Your task to perform on an android device: open a bookmark in the chrome app Image 0: 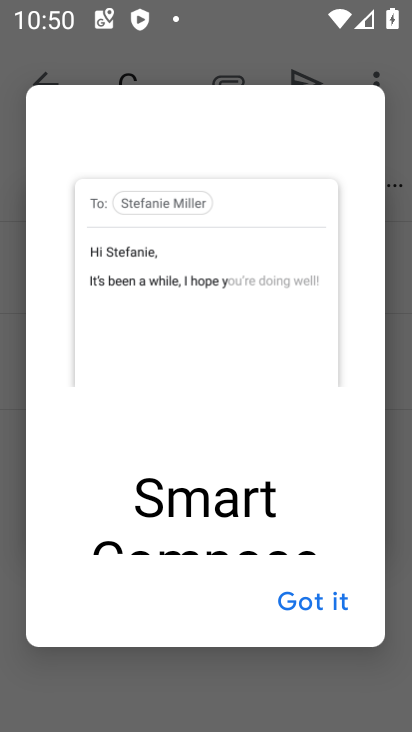
Step 0: press home button
Your task to perform on an android device: open a bookmark in the chrome app Image 1: 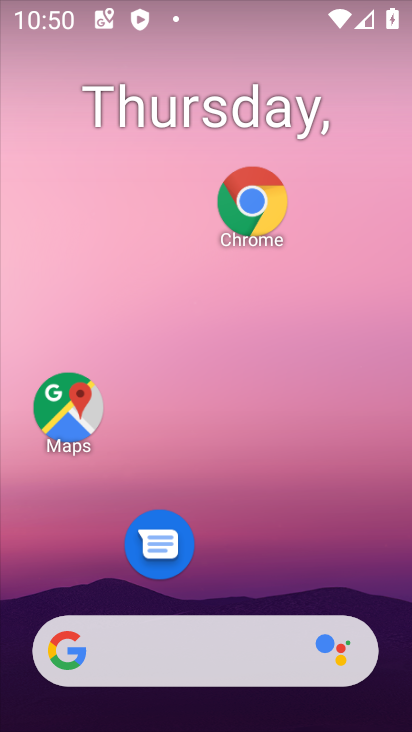
Step 1: click (260, 200)
Your task to perform on an android device: open a bookmark in the chrome app Image 2: 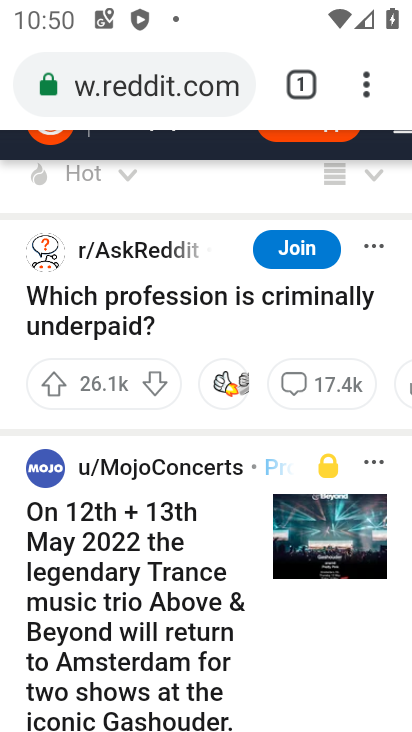
Step 2: click (371, 85)
Your task to perform on an android device: open a bookmark in the chrome app Image 3: 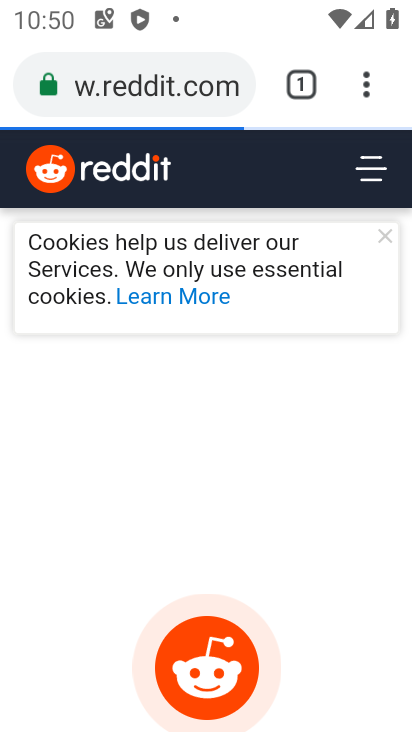
Step 3: click (365, 84)
Your task to perform on an android device: open a bookmark in the chrome app Image 4: 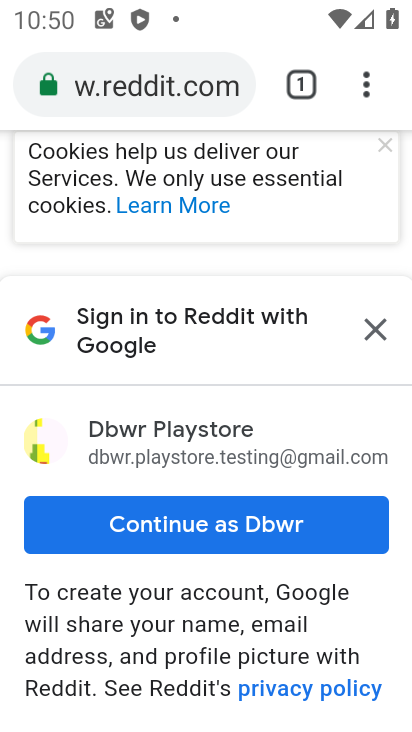
Step 4: click (363, 81)
Your task to perform on an android device: open a bookmark in the chrome app Image 5: 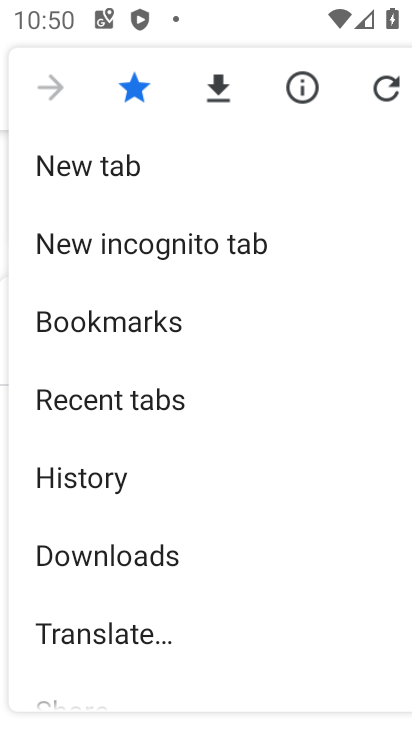
Step 5: click (194, 317)
Your task to perform on an android device: open a bookmark in the chrome app Image 6: 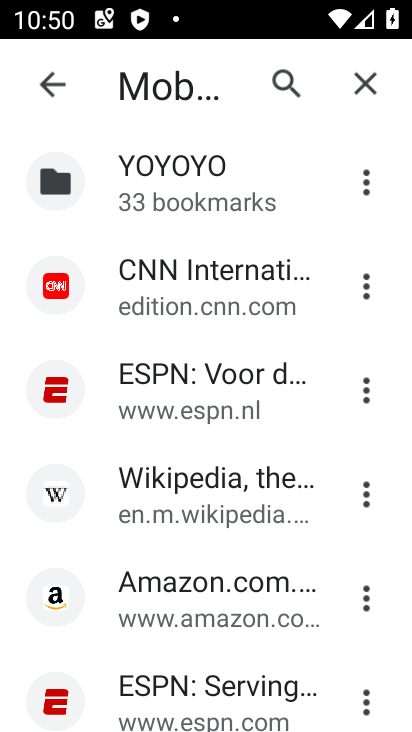
Step 6: click (167, 496)
Your task to perform on an android device: open a bookmark in the chrome app Image 7: 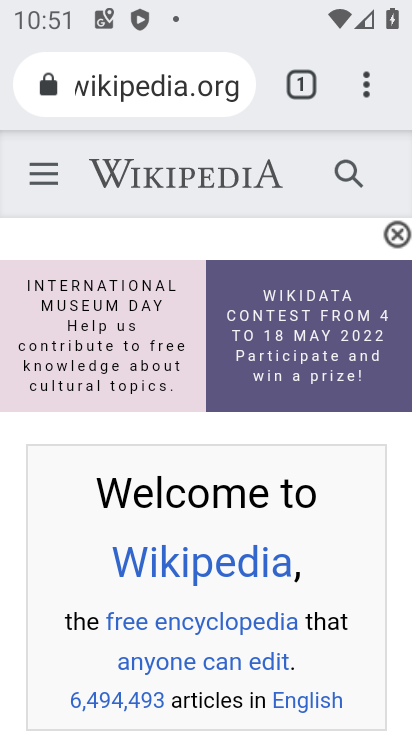
Step 7: drag from (218, 634) to (302, 257)
Your task to perform on an android device: open a bookmark in the chrome app Image 8: 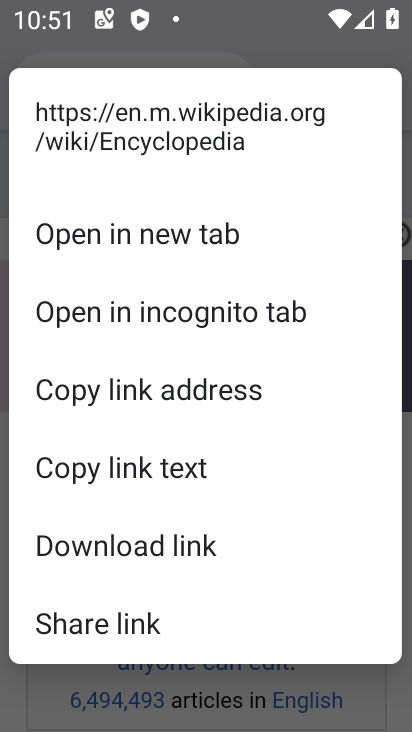
Step 8: click (252, 721)
Your task to perform on an android device: open a bookmark in the chrome app Image 9: 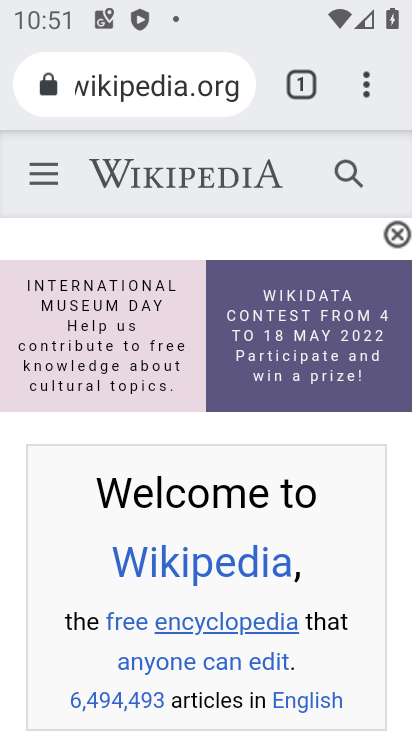
Step 9: task complete